Your task to perform on an android device: Show me popular videos on Youtube Image 0: 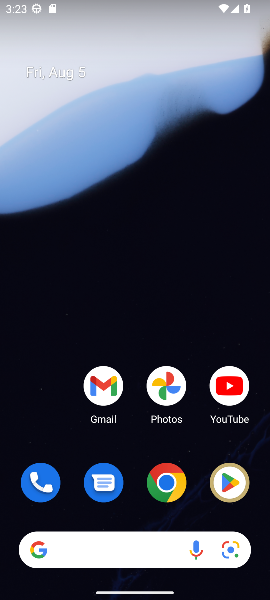
Step 0: click (227, 379)
Your task to perform on an android device: Show me popular videos on Youtube Image 1: 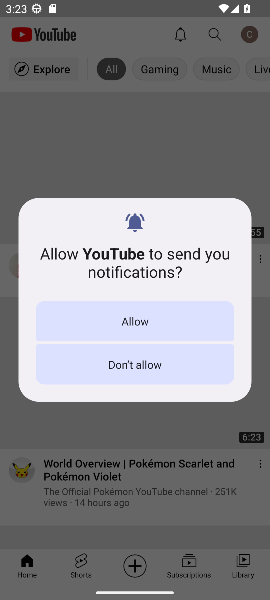
Step 1: click (135, 313)
Your task to perform on an android device: Show me popular videos on Youtube Image 2: 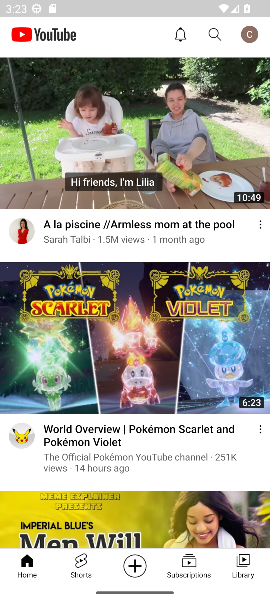
Step 2: drag from (118, 120) to (132, 375)
Your task to perform on an android device: Show me popular videos on Youtube Image 3: 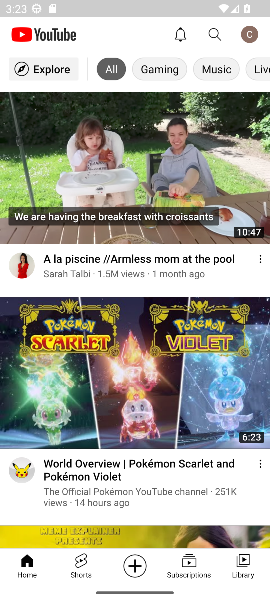
Step 3: click (39, 65)
Your task to perform on an android device: Show me popular videos on Youtube Image 4: 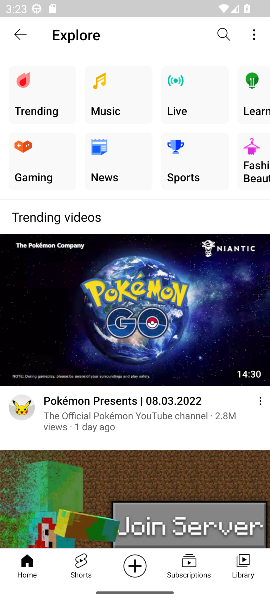
Step 4: click (32, 78)
Your task to perform on an android device: Show me popular videos on Youtube Image 5: 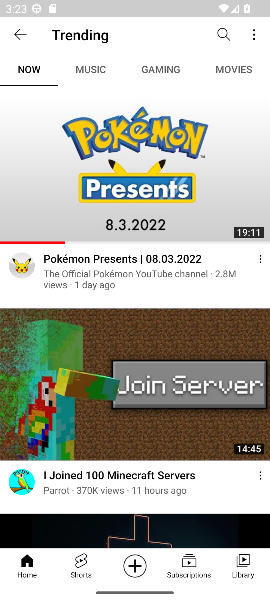
Step 5: task complete